Your task to perform on an android device: turn off javascript in the chrome app Image 0: 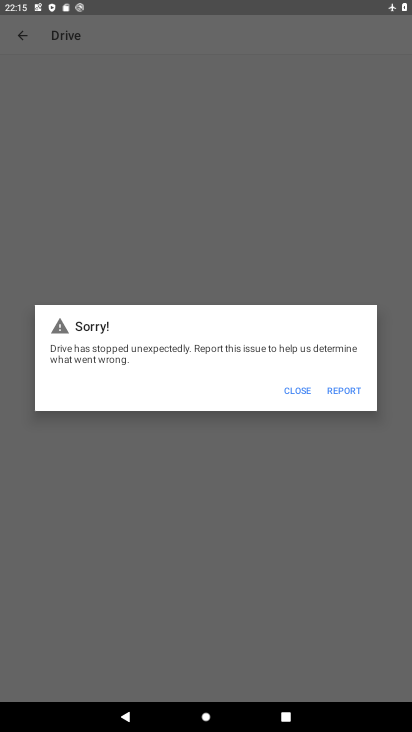
Step 0: press home button
Your task to perform on an android device: turn off javascript in the chrome app Image 1: 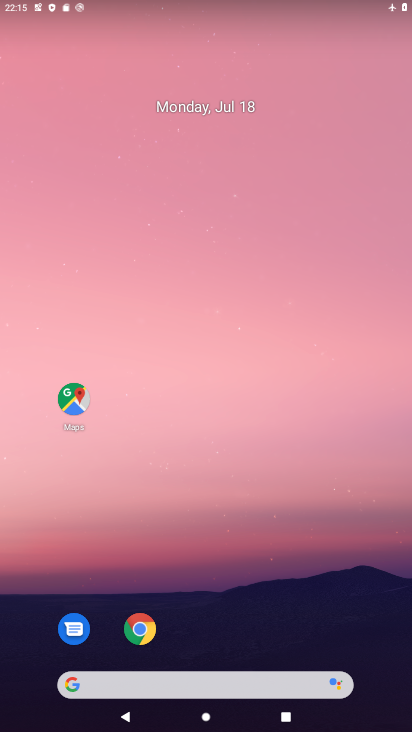
Step 1: drag from (346, 562) to (243, 5)
Your task to perform on an android device: turn off javascript in the chrome app Image 2: 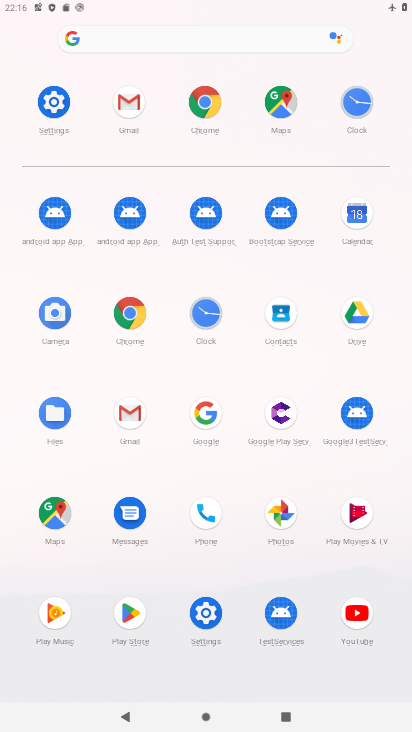
Step 2: click (129, 319)
Your task to perform on an android device: turn off javascript in the chrome app Image 3: 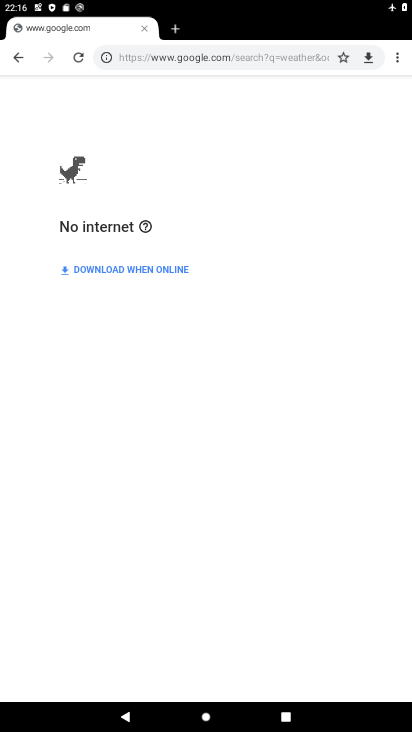
Step 3: drag from (397, 52) to (304, 396)
Your task to perform on an android device: turn off javascript in the chrome app Image 4: 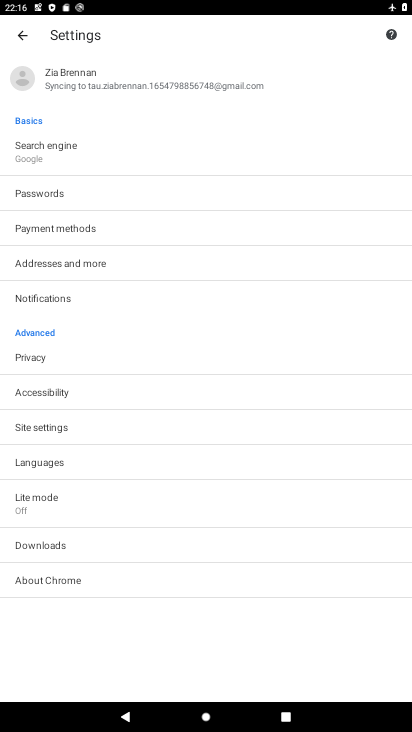
Step 4: click (58, 446)
Your task to perform on an android device: turn off javascript in the chrome app Image 5: 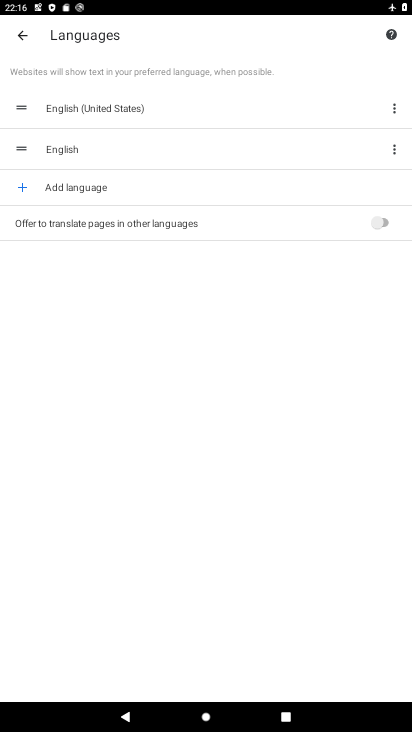
Step 5: press home button
Your task to perform on an android device: turn off javascript in the chrome app Image 6: 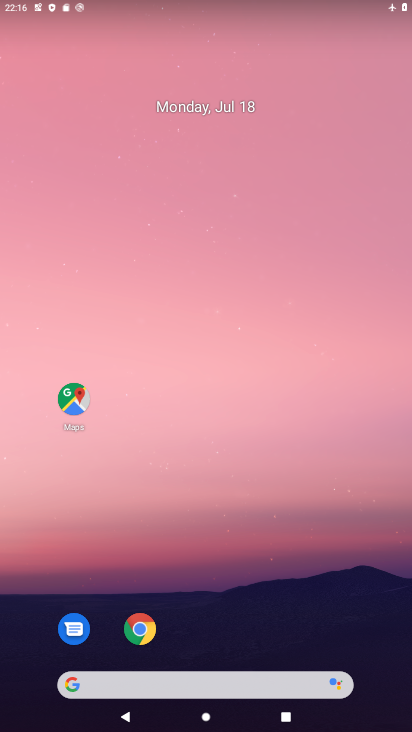
Step 6: drag from (237, 496) to (253, 287)
Your task to perform on an android device: turn off javascript in the chrome app Image 7: 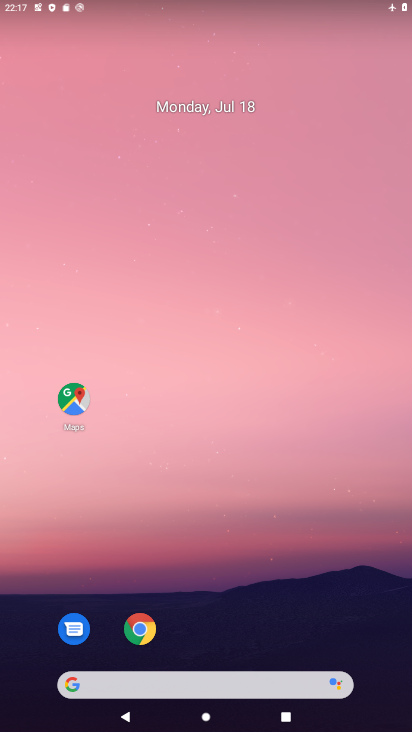
Step 7: drag from (289, 399) to (259, 103)
Your task to perform on an android device: turn off javascript in the chrome app Image 8: 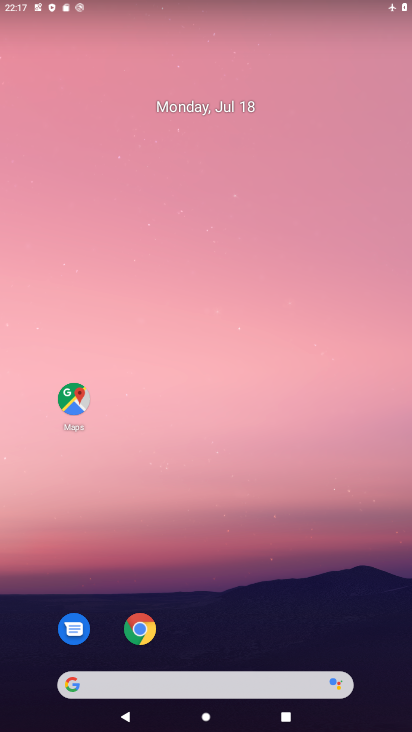
Step 8: drag from (280, 547) to (258, 25)
Your task to perform on an android device: turn off javascript in the chrome app Image 9: 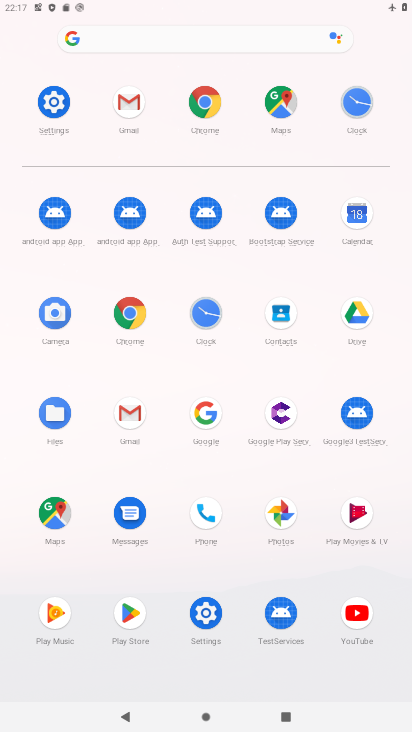
Step 9: click (213, 109)
Your task to perform on an android device: turn off javascript in the chrome app Image 10: 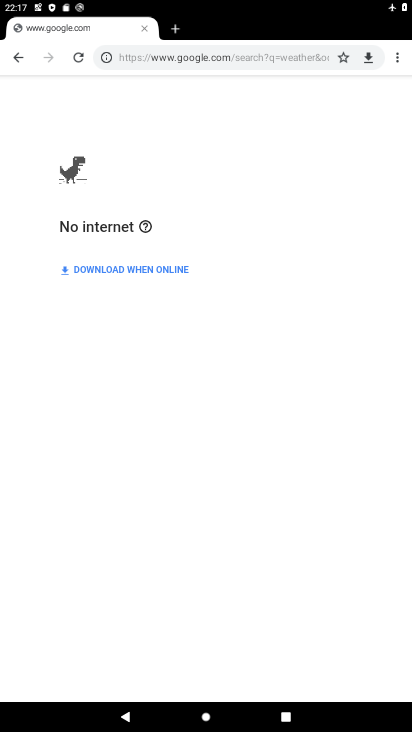
Step 10: click (403, 42)
Your task to perform on an android device: turn off javascript in the chrome app Image 11: 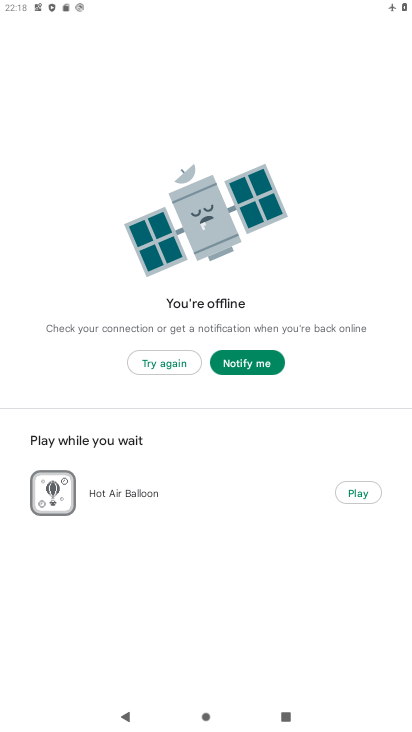
Step 11: press home button
Your task to perform on an android device: turn off javascript in the chrome app Image 12: 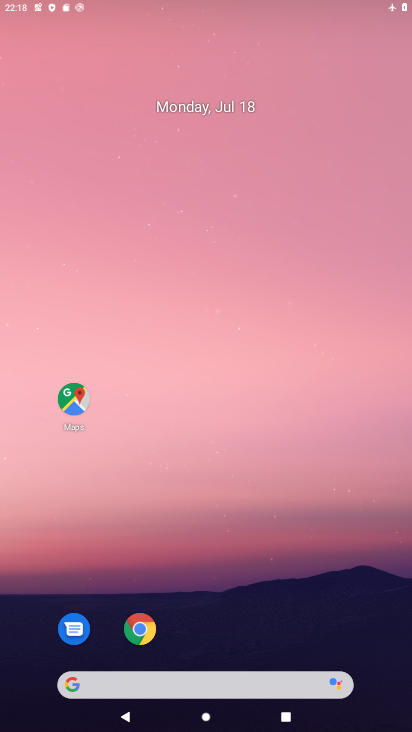
Step 12: drag from (210, 594) to (210, 128)
Your task to perform on an android device: turn off javascript in the chrome app Image 13: 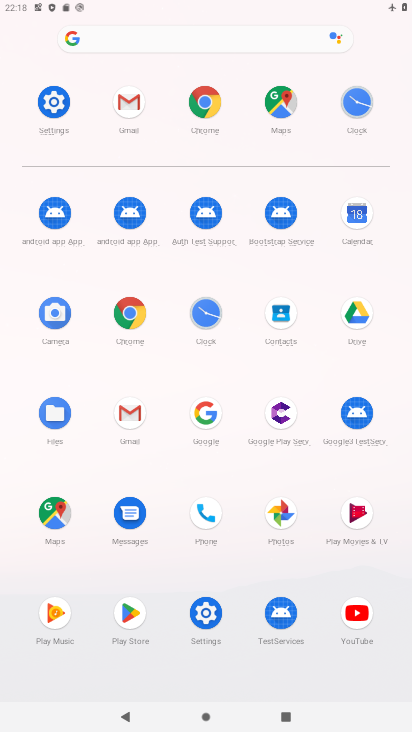
Step 13: click (208, 115)
Your task to perform on an android device: turn off javascript in the chrome app Image 14: 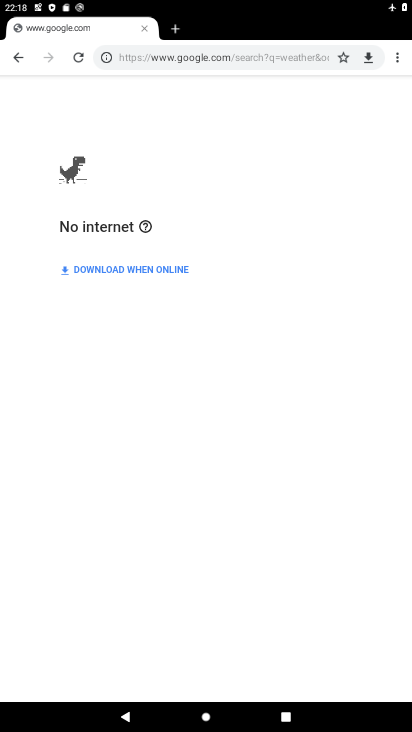
Step 14: drag from (393, 53) to (268, 384)
Your task to perform on an android device: turn off javascript in the chrome app Image 15: 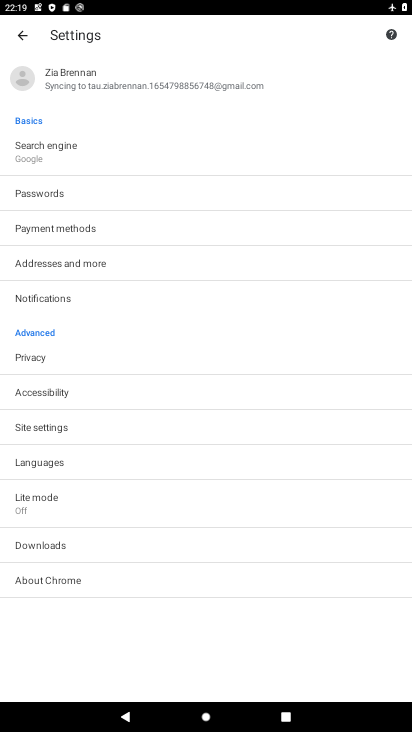
Step 15: click (59, 422)
Your task to perform on an android device: turn off javascript in the chrome app Image 16: 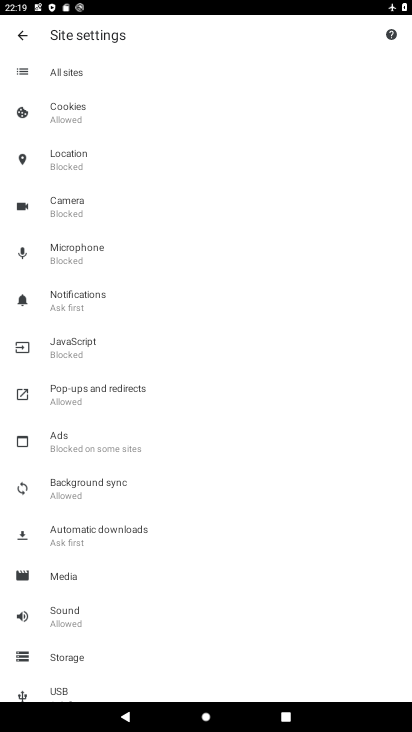
Step 16: click (80, 341)
Your task to perform on an android device: turn off javascript in the chrome app Image 17: 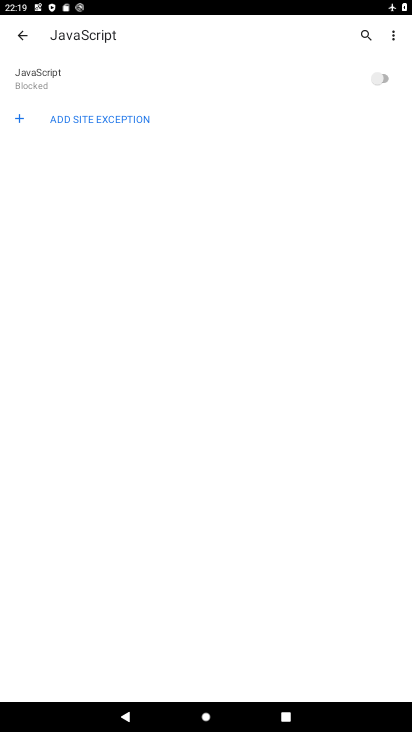
Step 17: task complete